Your task to perform on an android device: visit the assistant section in the google photos Image 0: 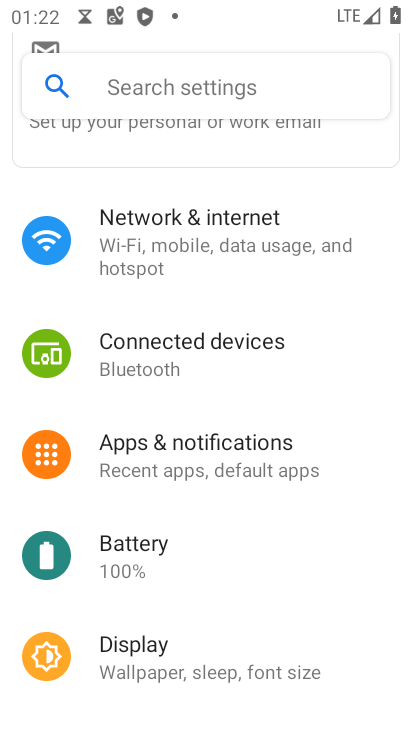
Step 0: press home button
Your task to perform on an android device: visit the assistant section in the google photos Image 1: 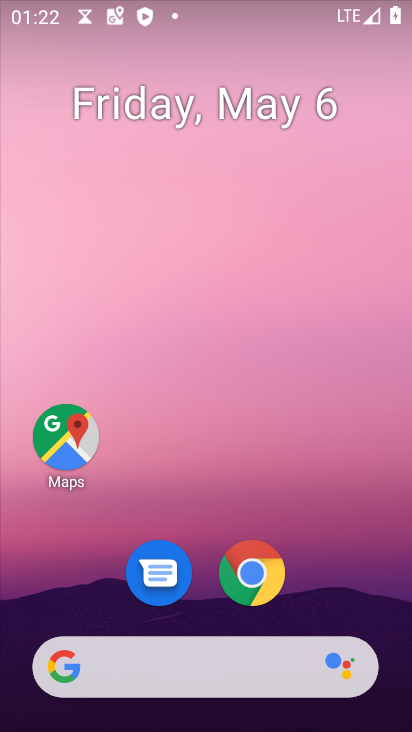
Step 1: drag from (267, 532) to (289, 316)
Your task to perform on an android device: visit the assistant section in the google photos Image 2: 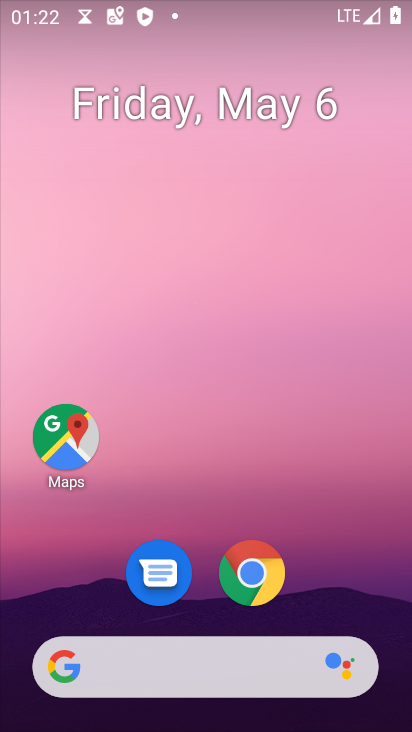
Step 2: drag from (295, 620) to (309, 299)
Your task to perform on an android device: visit the assistant section in the google photos Image 3: 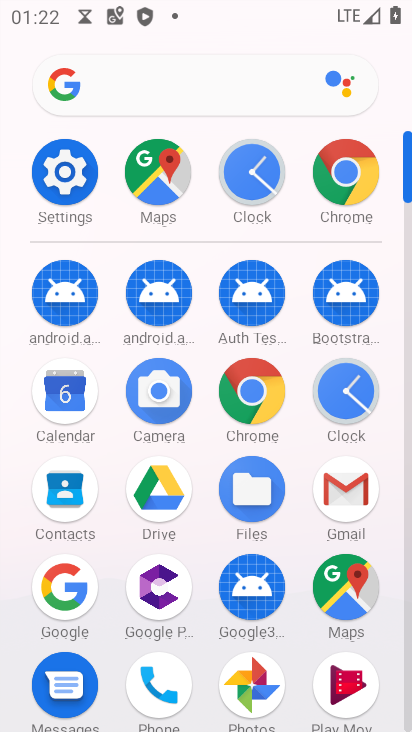
Step 3: click (235, 679)
Your task to perform on an android device: visit the assistant section in the google photos Image 4: 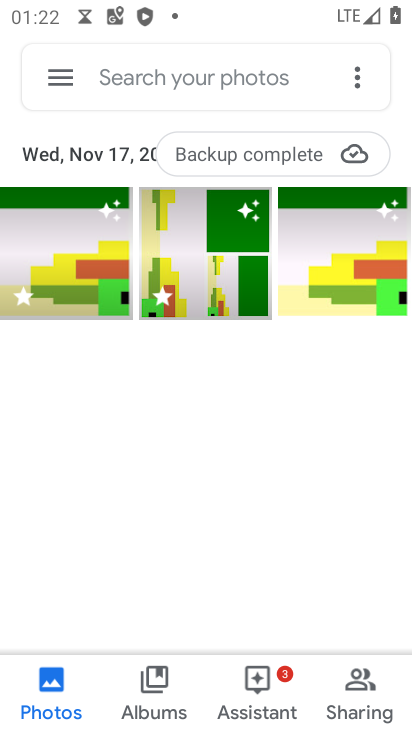
Step 4: click (260, 675)
Your task to perform on an android device: visit the assistant section in the google photos Image 5: 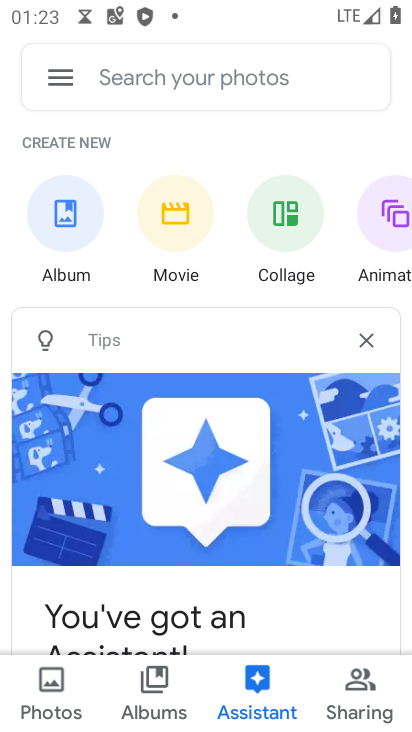
Step 5: task complete